Your task to perform on an android device: Go to Android settings Image 0: 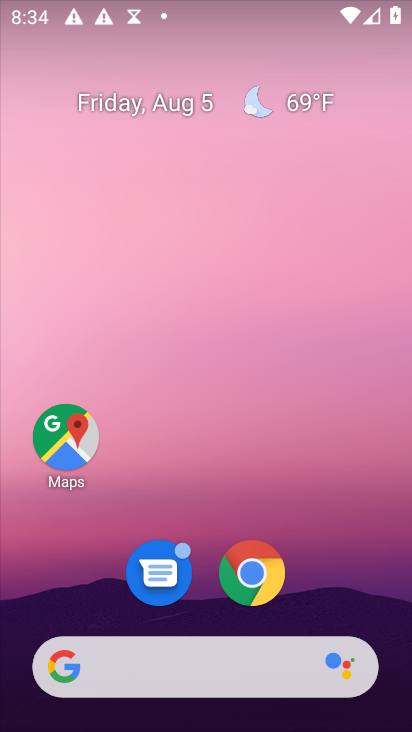
Step 0: drag from (159, 639) to (211, 37)
Your task to perform on an android device: Go to Android settings Image 1: 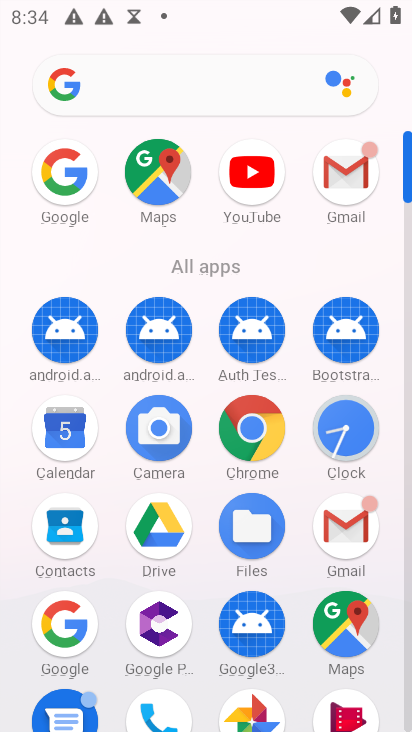
Step 1: drag from (295, 274) to (295, 138)
Your task to perform on an android device: Go to Android settings Image 2: 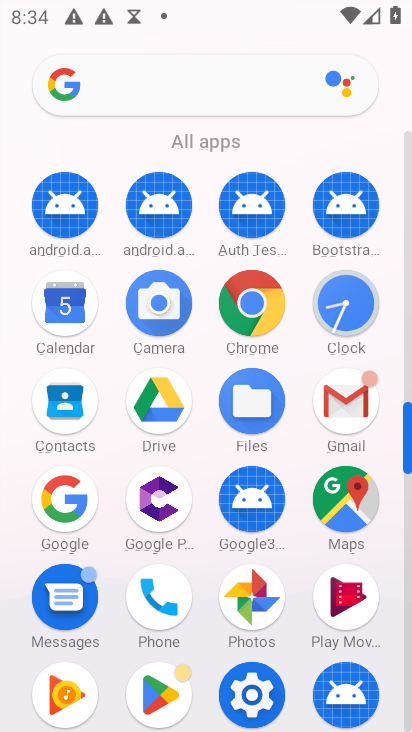
Step 2: click (253, 695)
Your task to perform on an android device: Go to Android settings Image 3: 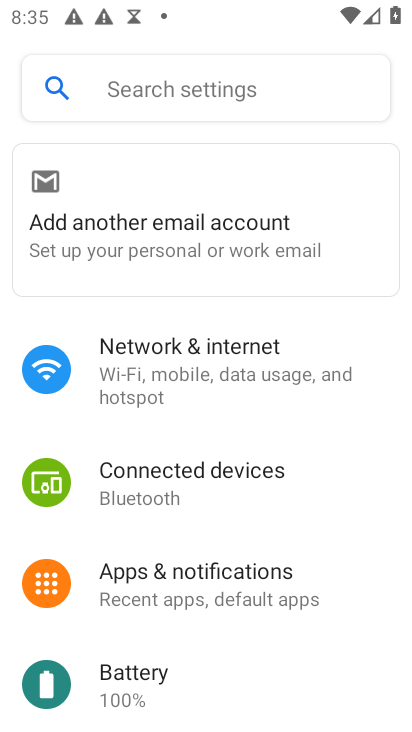
Step 3: task complete